Your task to perform on an android device: Check the new Jordans on Nike. Image 0: 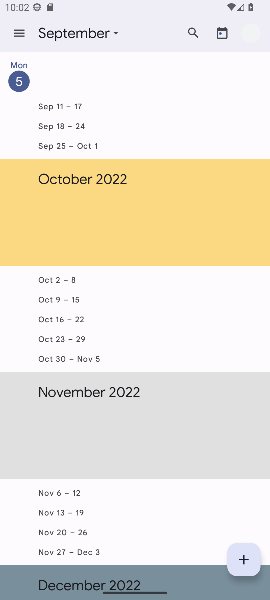
Step 0: press home button
Your task to perform on an android device: Check the new Jordans on Nike. Image 1: 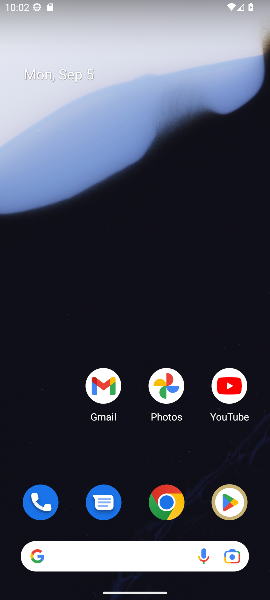
Step 1: drag from (82, 226) to (74, 82)
Your task to perform on an android device: Check the new Jordans on Nike. Image 2: 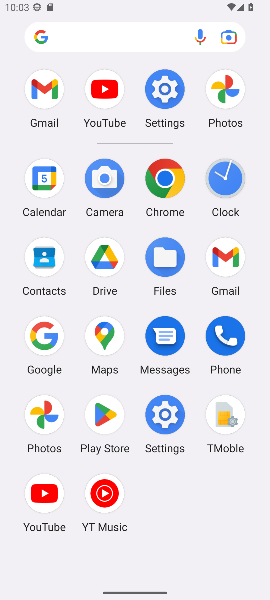
Step 2: click (51, 345)
Your task to perform on an android device: Check the new Jordans on Nike. Image 3: 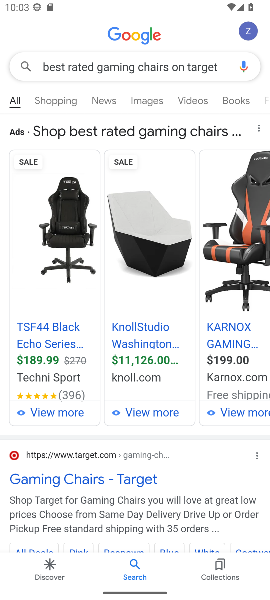
Step 3: press back button
Your task to perform on an android device: Check the new Jordans on Nike. Image 4: 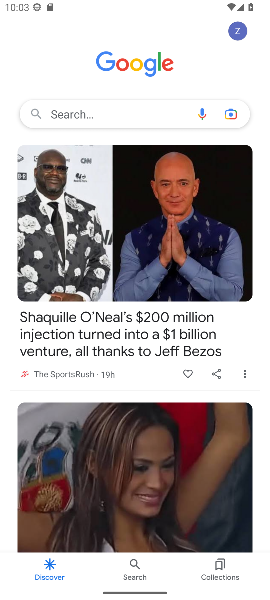
Step 4: click (46, 110)
Your task to perform on an android device: Check the new Jordans on Nike. Image 5: 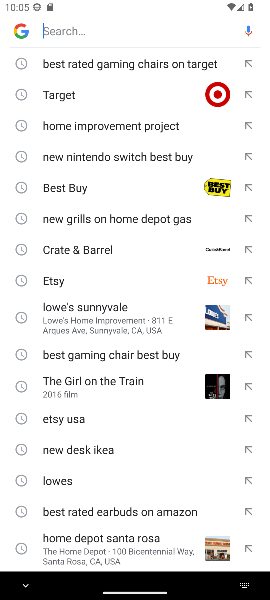
Step 5: type "new Jordans on Nike"
Your task to perform on an android device: Check the new Jordans on Nike. Image 6: 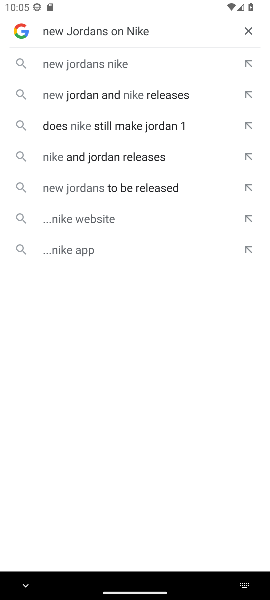
Step 6: click (81, 68)
Your task to perform on an android device: Check the new Jordans on Nike. Image 7: 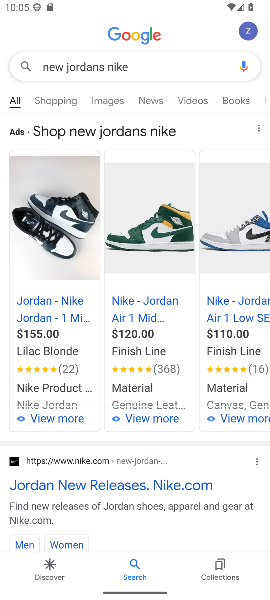
Step 7: task complete